Your task to perform on an android device: Play the last video I watched on Youtube Image 0: 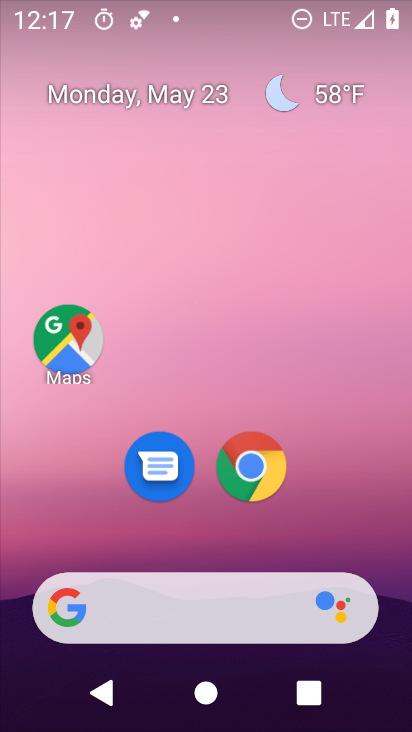
Step 0: drag from (223, 528) to (226, 107)
Your task to perform on an android device: Play the last video I watched on Youtube Image 1: 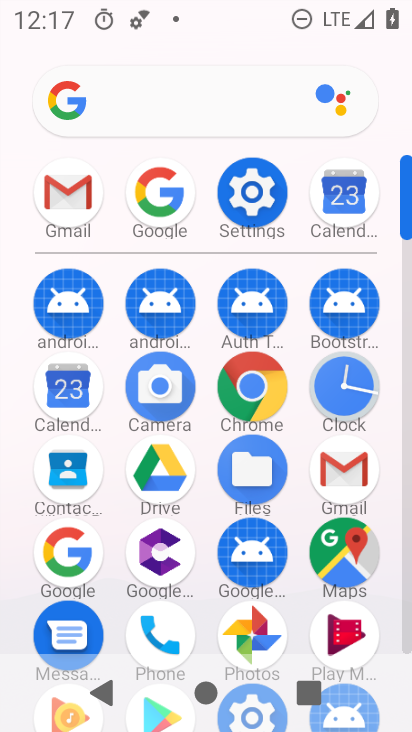
Step 1: drag from (205, 491) to (201, 89)
Your task to perform on an android device: Play the last video I watched on Youtube Image 2: 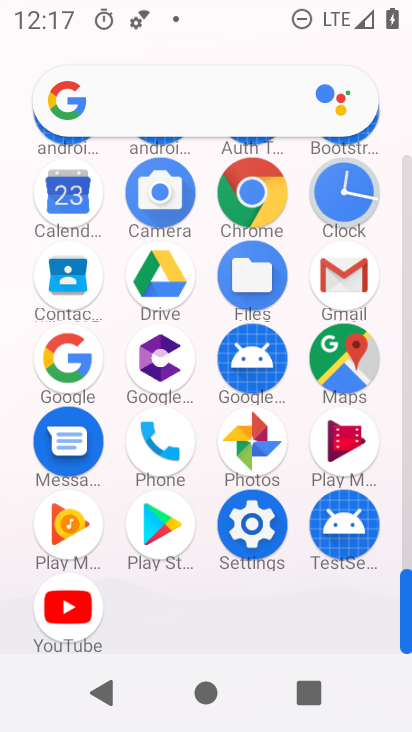
Step 2: click (70, 613)
Your task to perform on an android device: Play the last video I watched on Youtube Image 3: 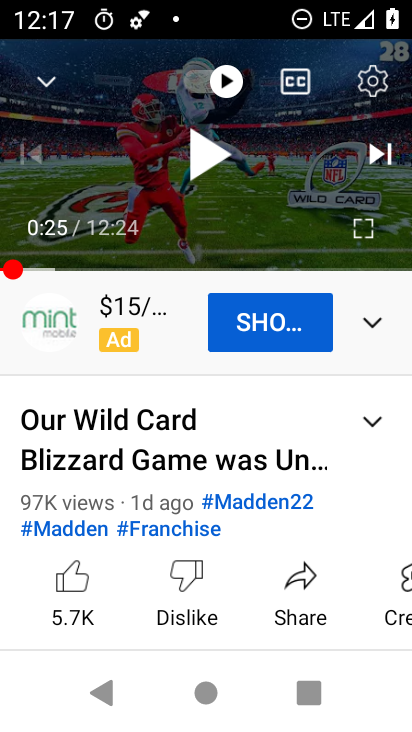
Step 3: click (213, 160)
Your task to perform on an android device: Play the last video I watched on Youtube Image 4: 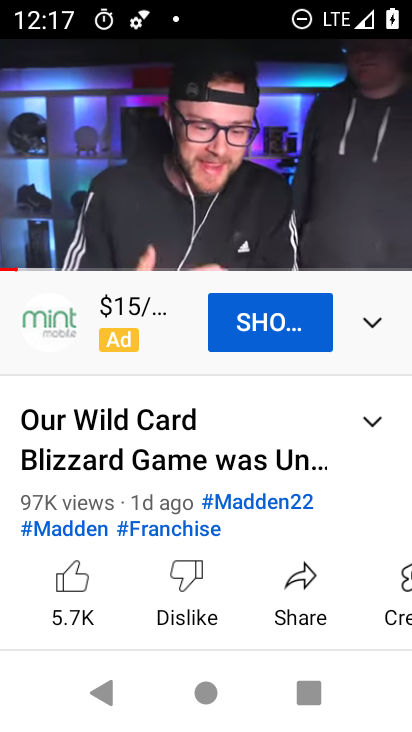
Step 4: task complete